Your task to perform on an android device: Go to privacy settings Image 0: 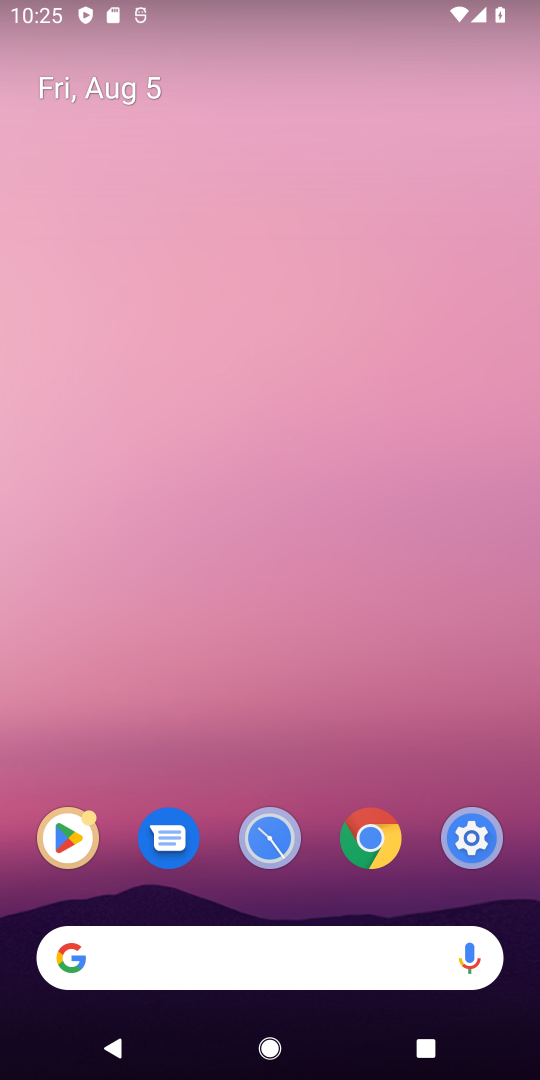
Step 0: drag from (337, 735) to (490, 90)
Your task to perform on an android device: Go to privacy settings Image 1: 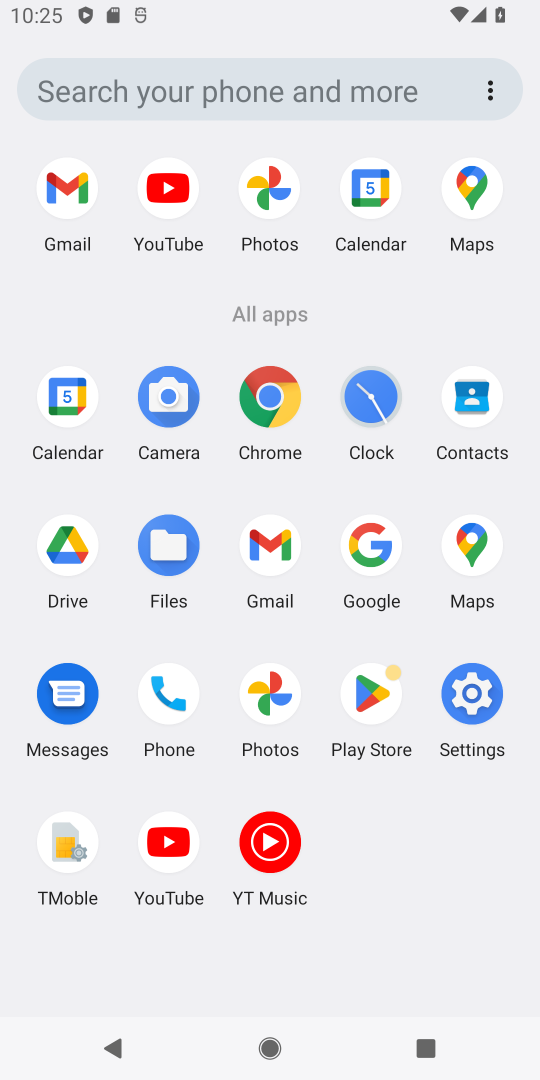
Step 1: click (470, 702)
Your task to perform on an android device: Go to privacy settings Image 2: 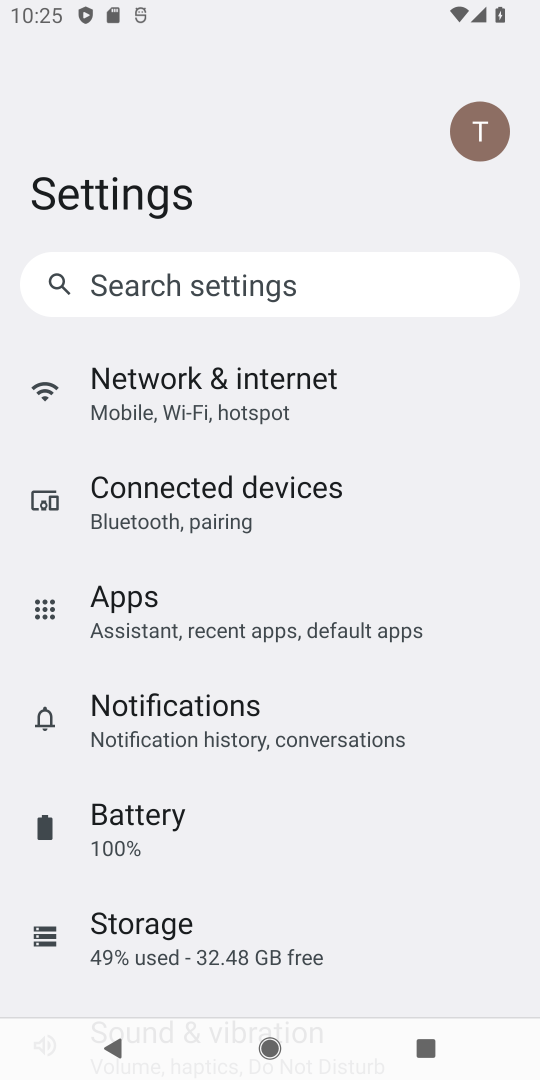
Step 2: drag from (144, 644) to (163, 311)
Your task to perform on an android device: Go to privacy settings Image 3: 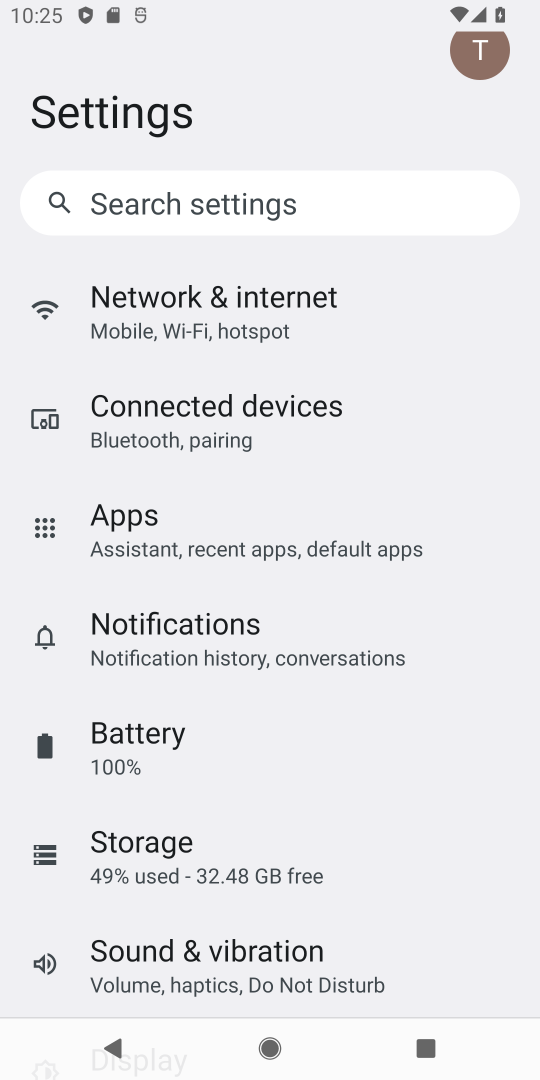
Step 3: drag from (161, 776) to (93, 209)
Your task to perform on an android device: Go to privacy settings Image 4: 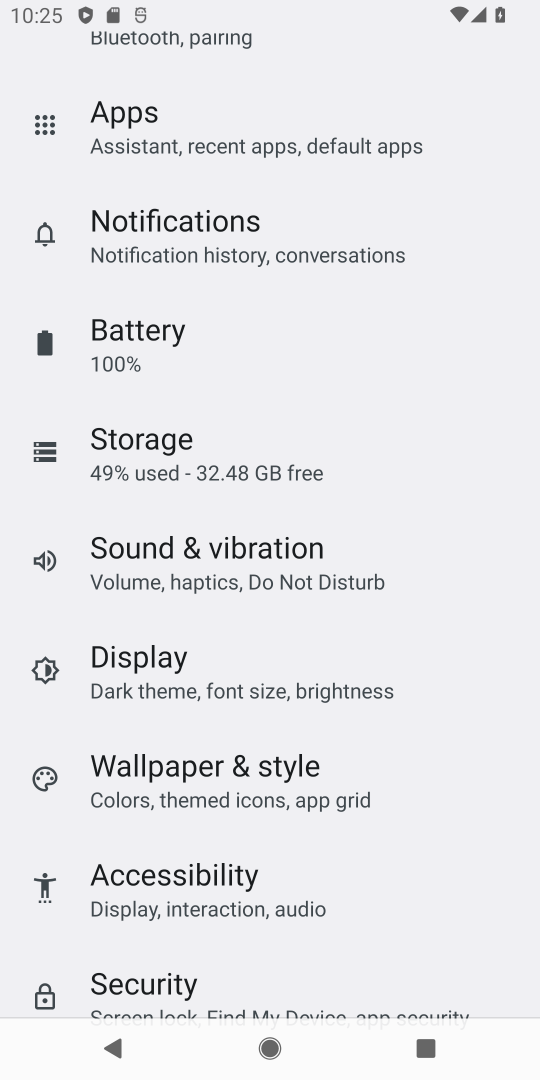
Step 4: drag from (215, 850) to (262, 318)
Your task to perform on an android device: Go to privacy settings Image 5: 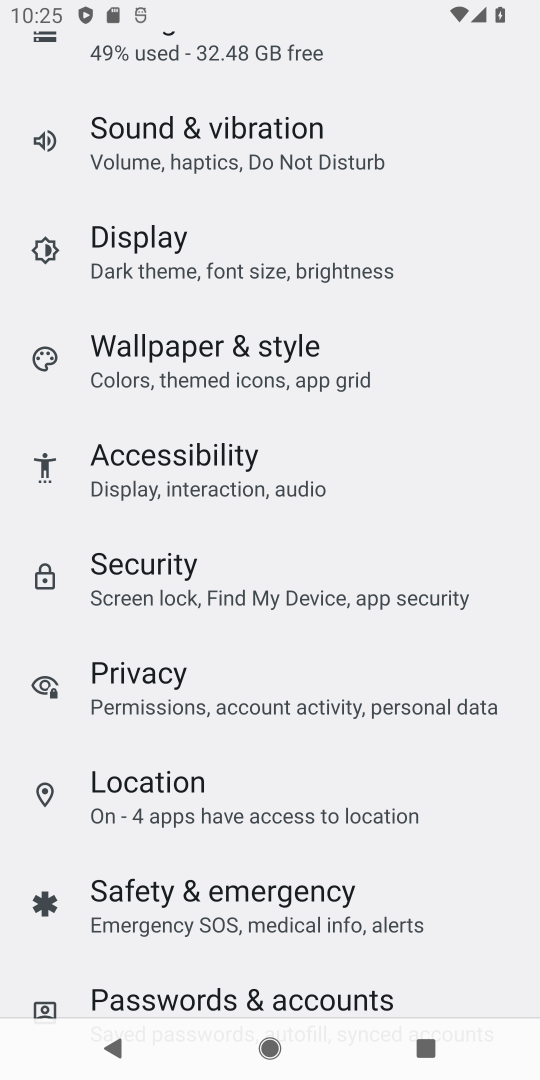
Step 5: click (197, 663)
Your task to perform on an android device: Go to privacy settings Image 6: 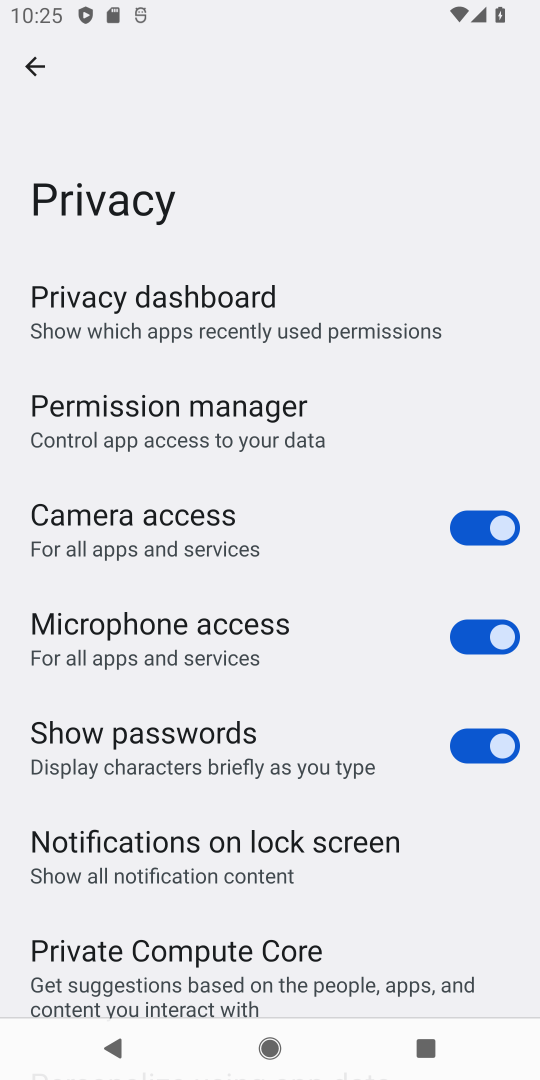
Step 6: task complete